Your task to perform on an android device: Open Google Maps and go to "Timeline" Image 0: 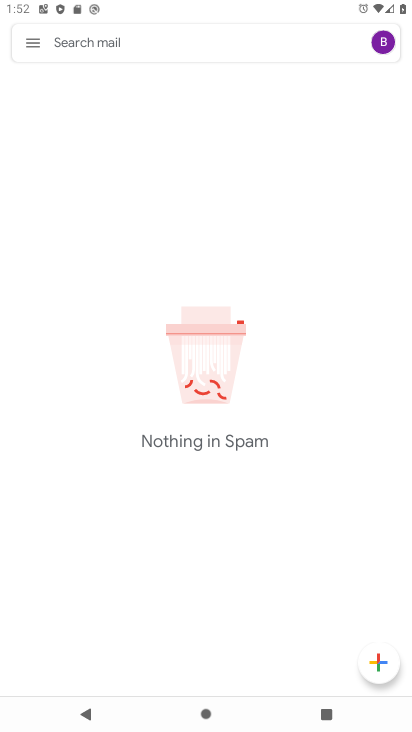
Step 0: press home button
Your task to perform on an android device: Open Google Maps and go to "Timeline" Image 1: 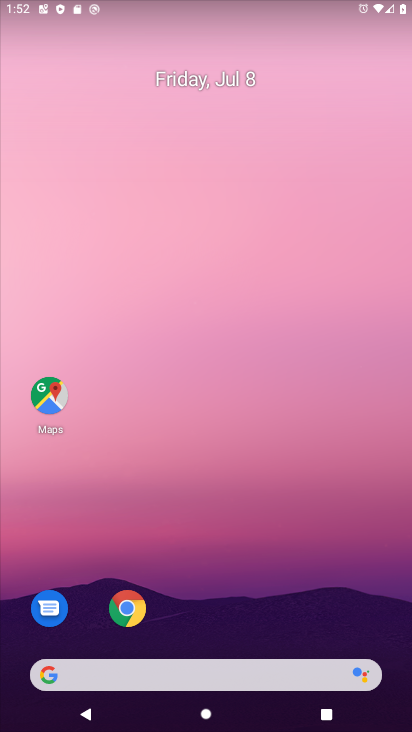
Step 1: click (68, 376)
Your task to perform on an android device: Open Google Maps and go to "Timeline" Image 2: 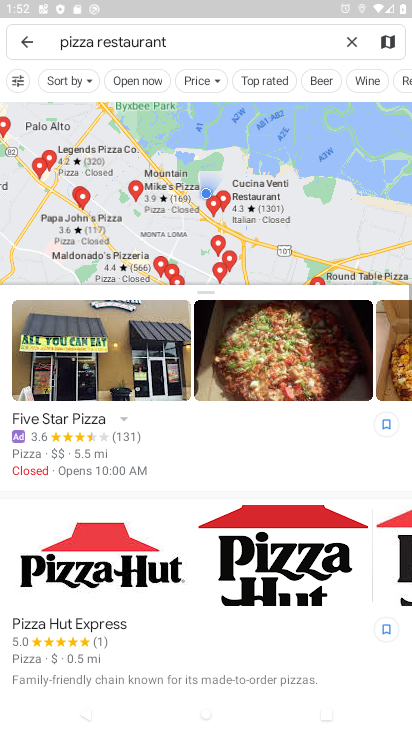
Step 2: click (35, 41)
Your task to perform on an android device: Open Google Maps and go to "Timeline" Image 3: 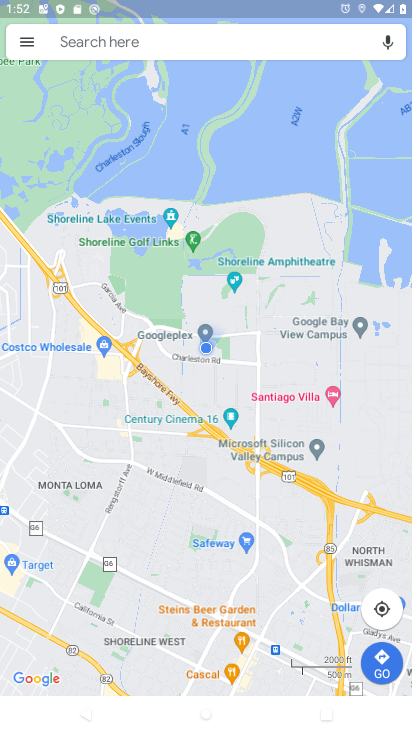
Step 3: click (35, 41)
Your task to perform on an android device: Open Google Maps and go to "Timeline" Image 4: 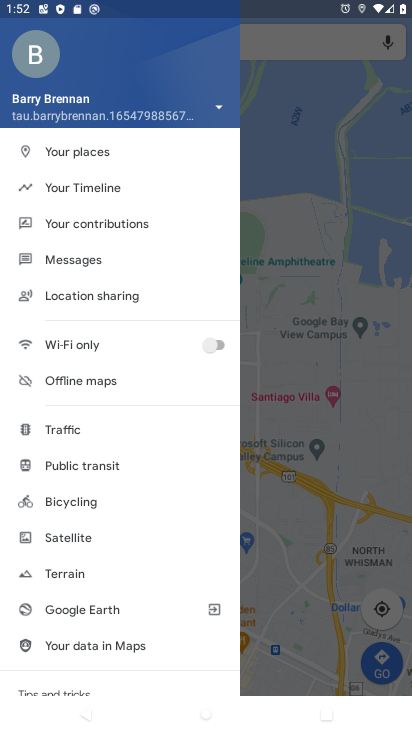
Step 4: click (88, 179)
Your task to perform on an android device: Open Google Maps and go to "Timeline" Image 5: 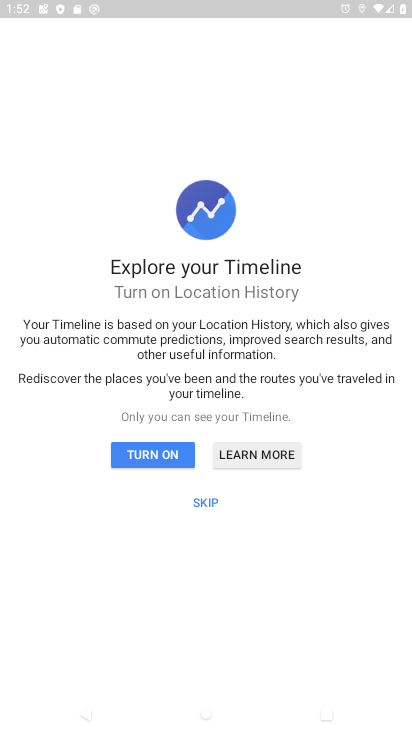
Step 5: click (139, 460)
Your task to perform on an android device: Open Google Maps and go to "Timeline" Image 6: 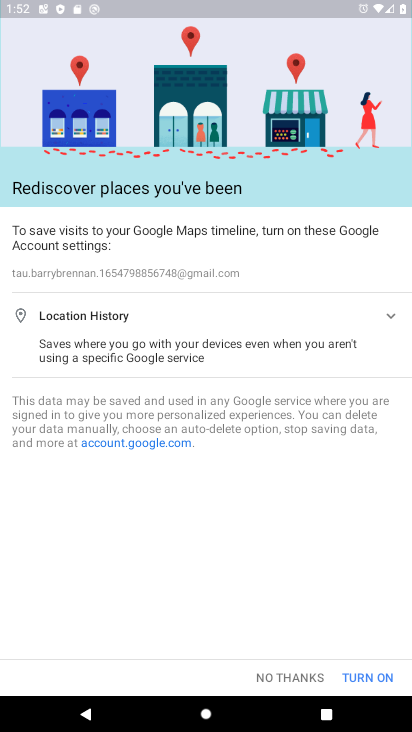
Step 6: task complete